Your task to perform on an android device: open the mobile data screen to see how much data has been used Image 0: 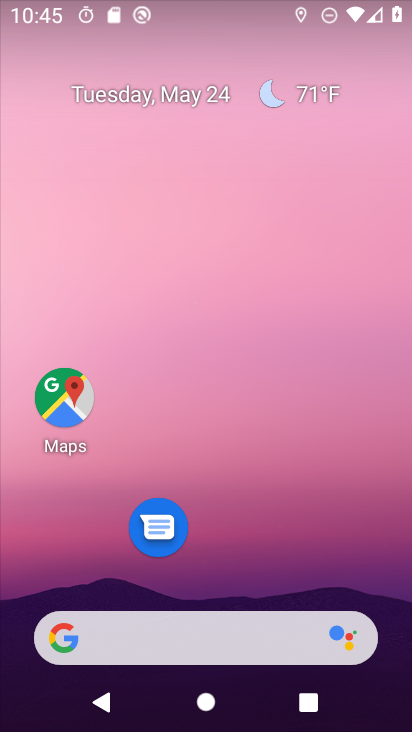
Step 0: drag from (242, 528) to (237, 81)
Your task to perform on an android device: open the mobile data screen to see how much data has been used Image 1: 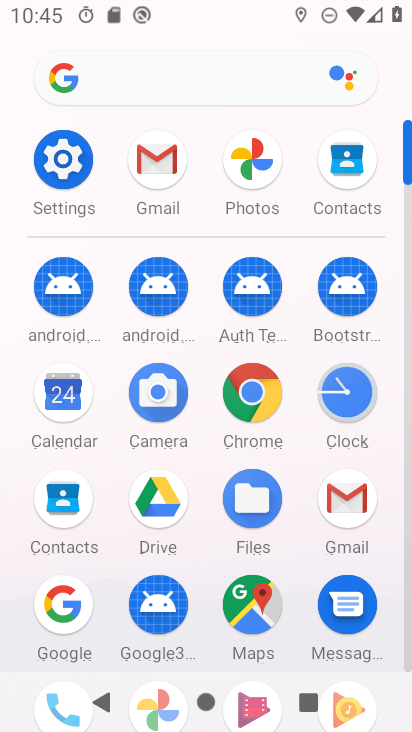
Step 1: click (57, 155)
Your task to perform on an android device: open the mobile data screen to see how much data has been used Image 2: 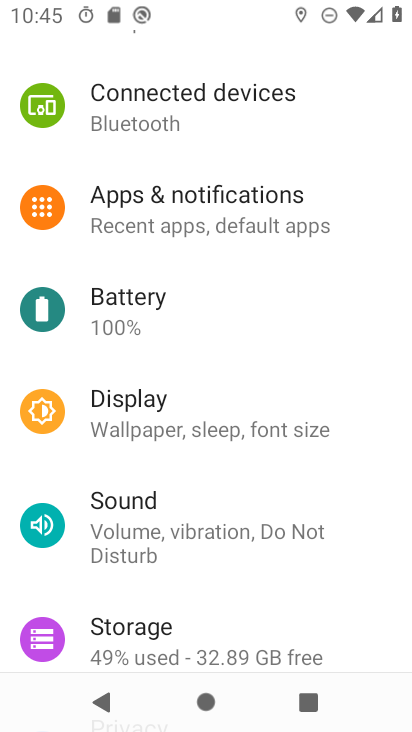
Step 2: drag from (159, 114) to (202, 583)
Your task to perform on an android device: open the mobile data screen to see how much data has been used Image 3: 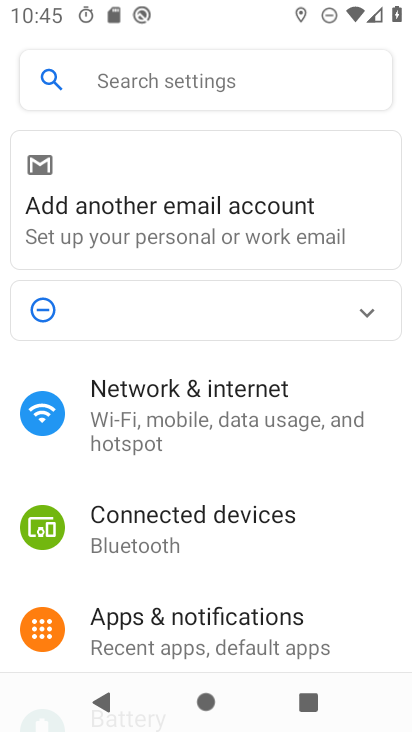
Step 3: click (183, 407)
Your task to perform on an android device: open the mobile data screen to see how much data has been used Image 4: 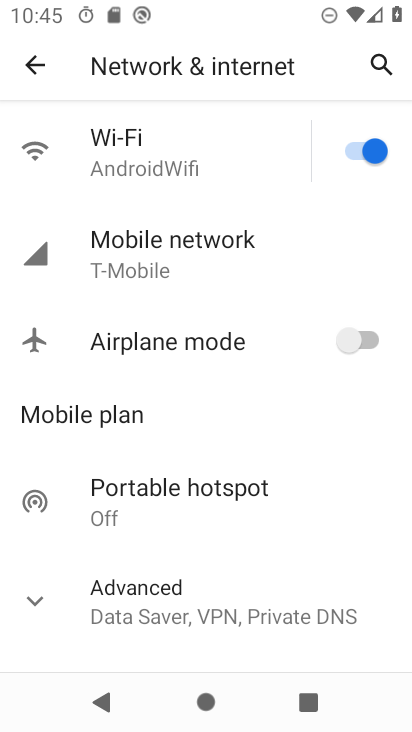
Step 4: click (182, 266)
Your task to perform on an android device: open the mobile data screen to see how much data has been used Image 5: 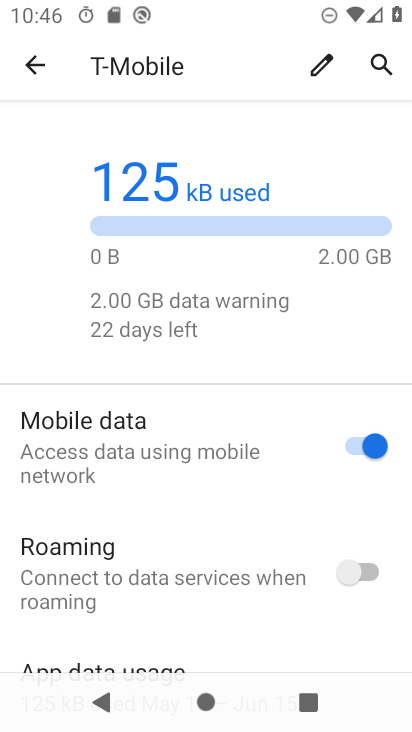
Step 5: task complete